Your task to perform on an android device: change the clock style Image 0: 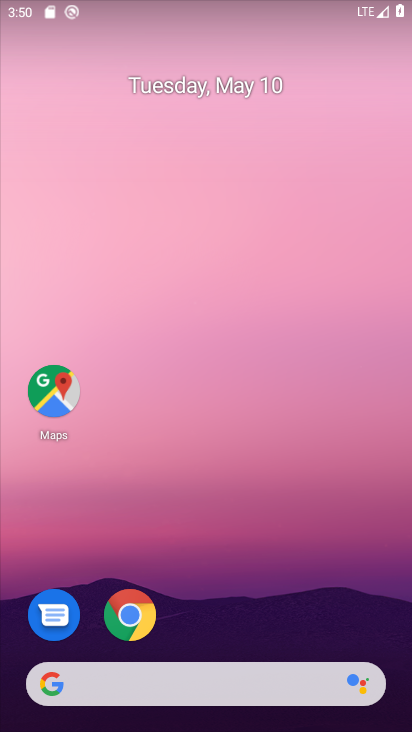
Step 0: drag from (169, 685) to (141, 66)
Your task to perform on an android device: change the clock style Image 1: 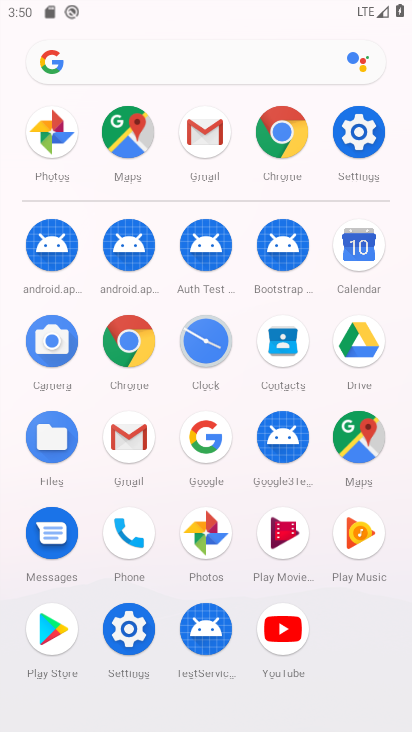
Step 1: click (200, 342)
Your task to perform on an android device: change the clock style Image 2: 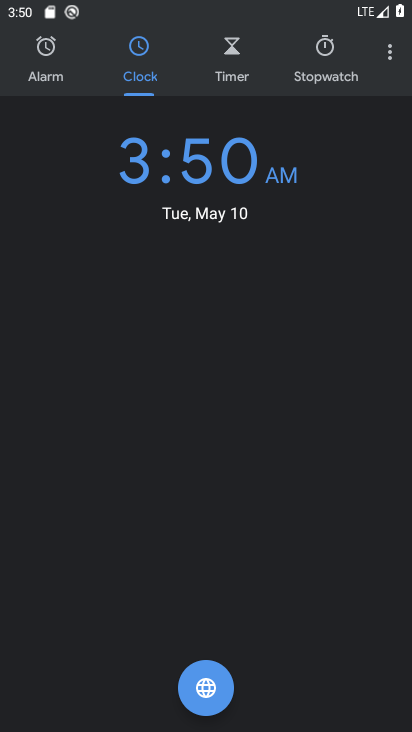
Step 2: click (381, 41)
Your task to perform on an android device: change the clock style Image 3: 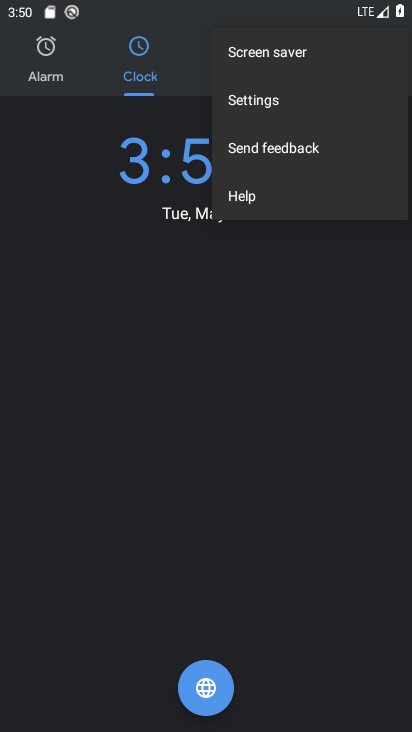
Step 3: click (258, 110)
Your task to perform on an android device: change the clock style Image 4: 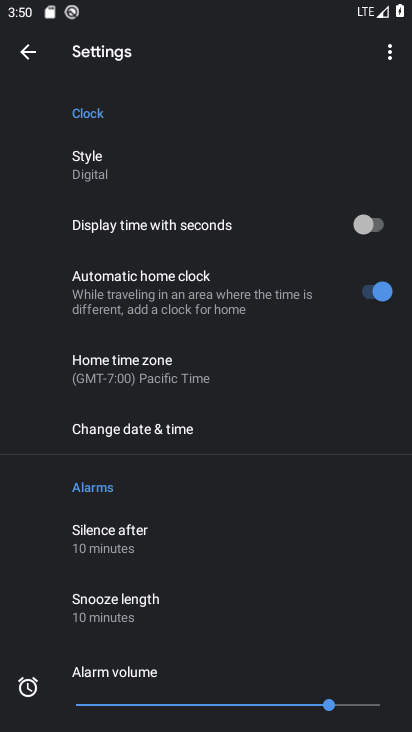
Step 4: click (114, 161)
Your task to perform on an android device: change the clock style Image 5: 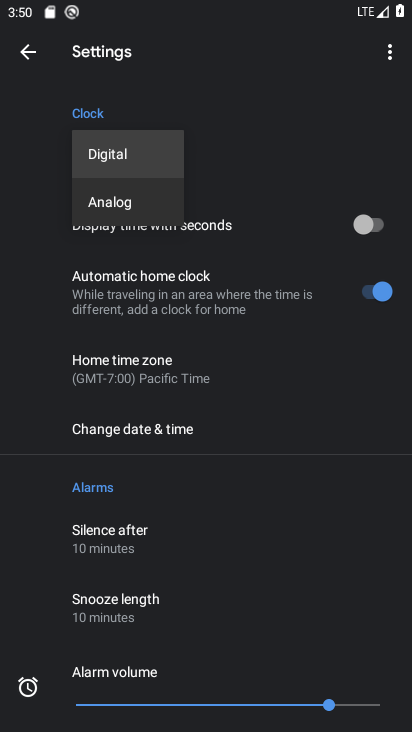
Step 5: click (112, 202)
Your task to perform on an android device: change the clock style Image 6: 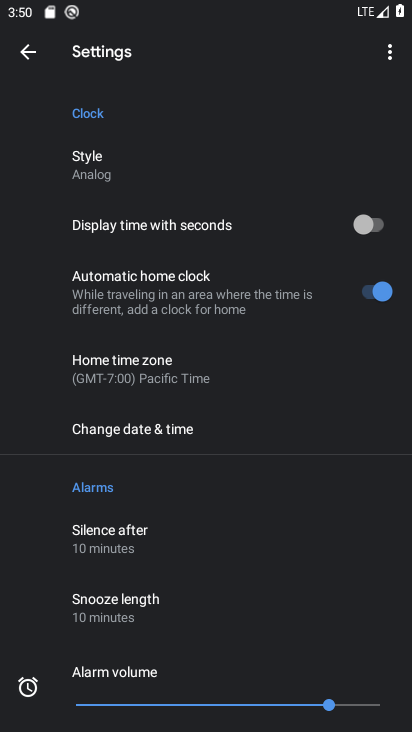
Step 6: task complete